Your task to perform on an android device: toggle priority inbox in the gmail app Image 0: 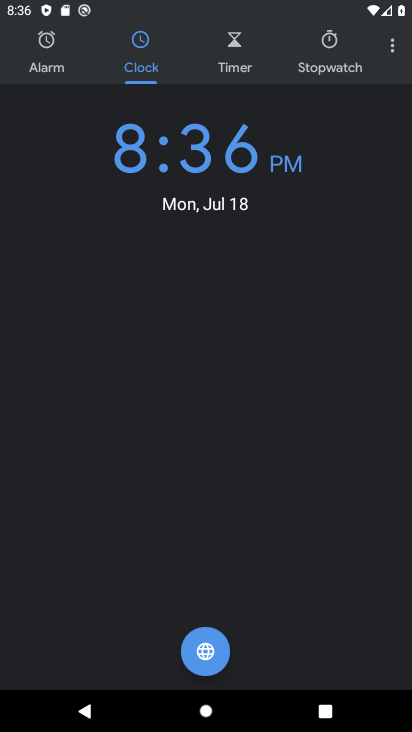
Step 0: press home button
Your task to perform on an android device: toggle priority inbox in the gmail app Image 1: 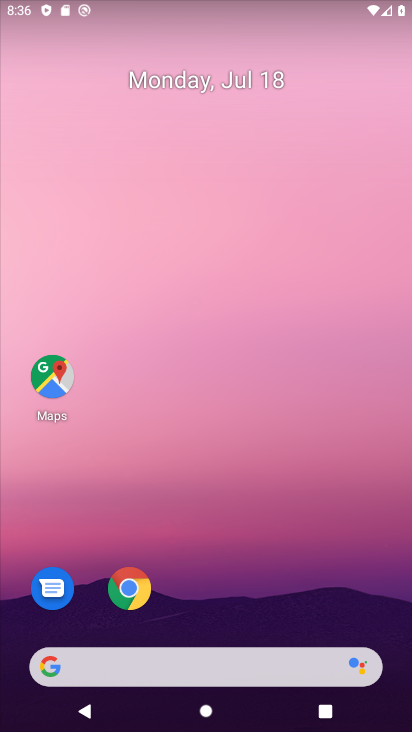
Step 1: drag from (228, 578) to (177, 46)
Your task to perform on an android device: toggle priority inbox in the gmail app Image 2: 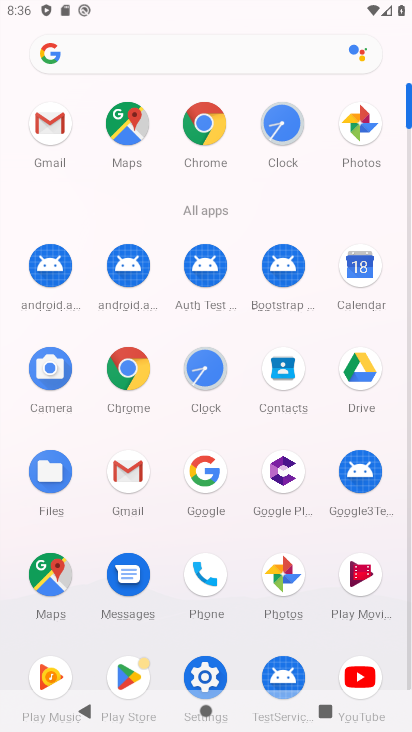
Step 2: click (115, 472)
Your task to perform on an android device: toggle priority inbox in the gmail app Image 3: 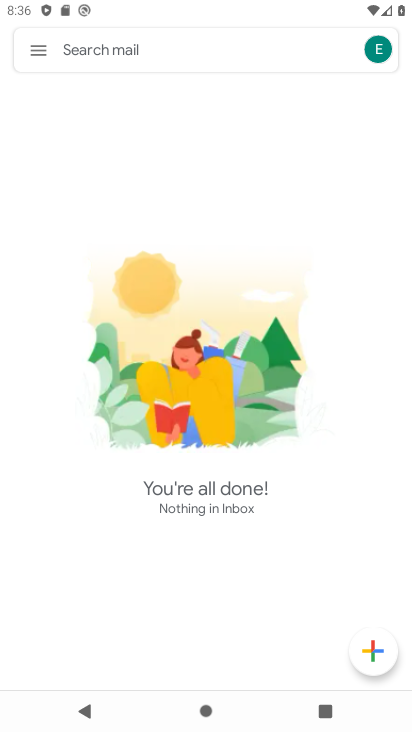
Step 3: click (42, 43)
Your task to perform on an android device: toggle priority inbox in the gmail app Image 4: 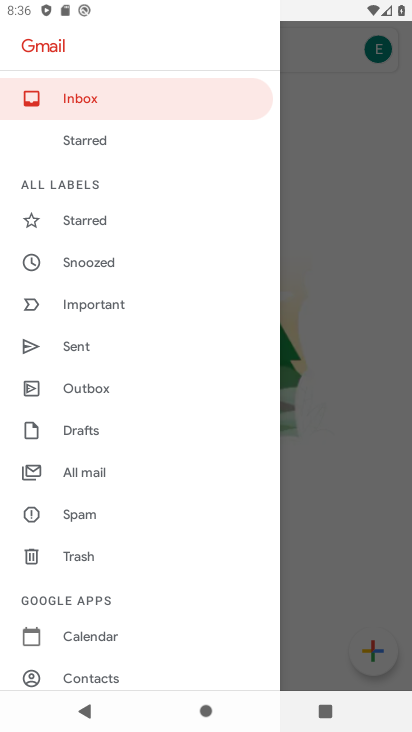
Step 4: drag from (165, 619) to (148, 231)
Your task to perform on an android device: toggle priority inbox in the gmail app Image 5: 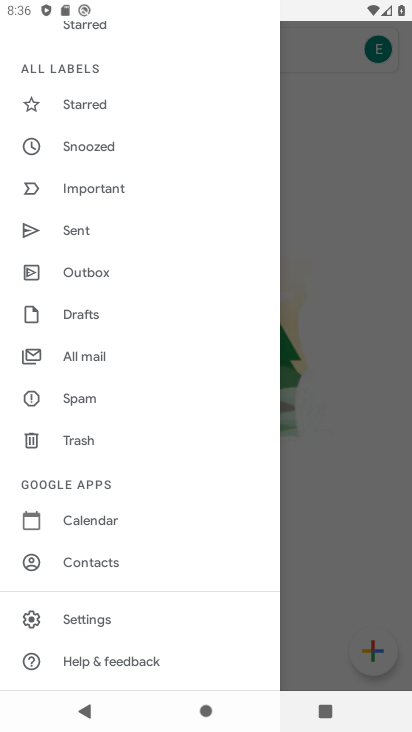
Step 5: click (84, 621)
Your task to perform on an android device: toggle priority inbox in the gmail app Image 6: 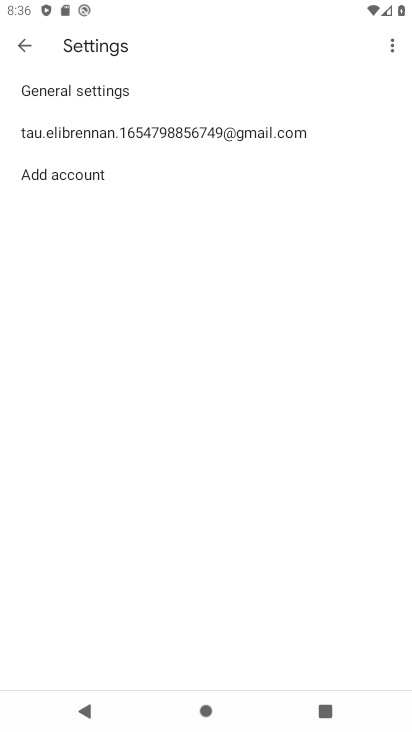
Step 6: click (71, 126)
Your task to perform on an android device: toggle priority inbox in the gmail app Image 7: 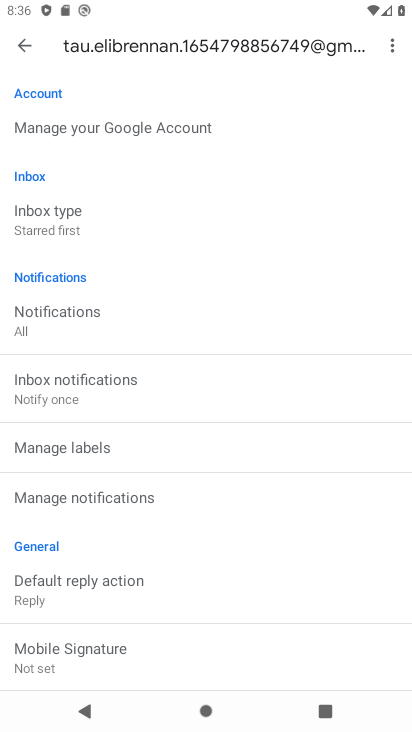
Step 7: drag from (147, 597) to (121, 183)
Your task to perform on an android device: toggle priority inbox in the gmail app Image 8: 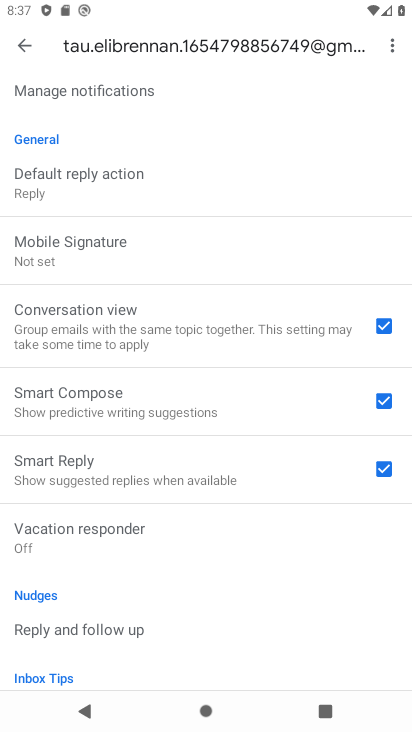
Step 8: drag from (147, 177) to (142, 582)
Your task to perform on an android device: toggle priority inbox in the gmail app Image 9: 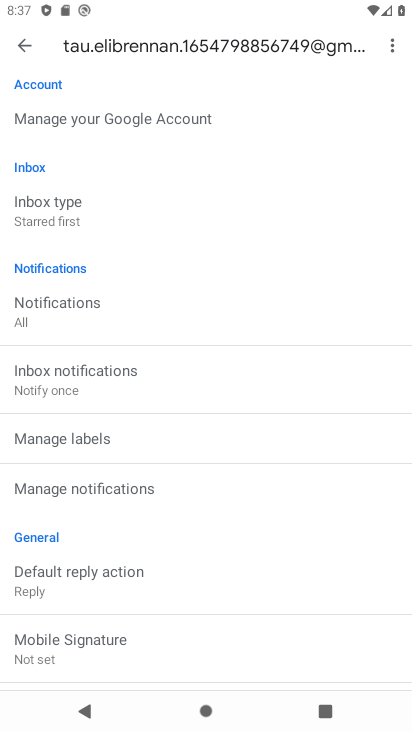
Step 9: click (32, 211)
Your task to perform on an android device: toggle priority inbox in the gmail app Image 10: 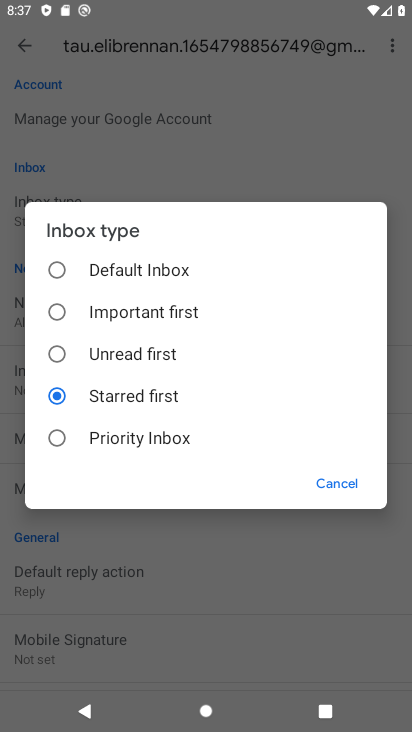
Step 10: click (51, 434)
Your task to perform on an android device: toggle priority inbox in the gmail app Image 11: 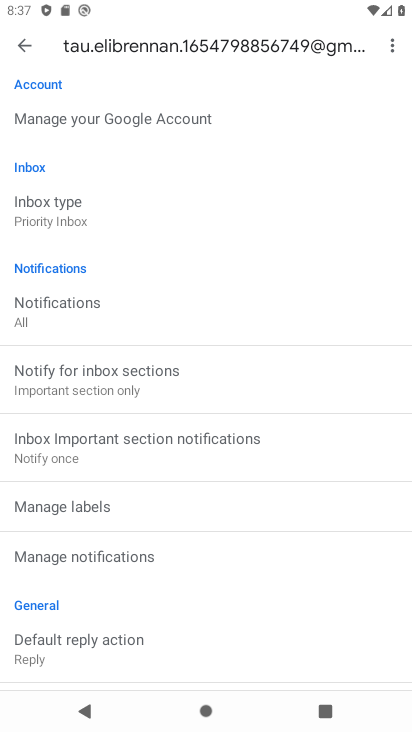
Step 11: task complete